Your task to perform on an android device: turn on javascript in the chrome app Image 0: 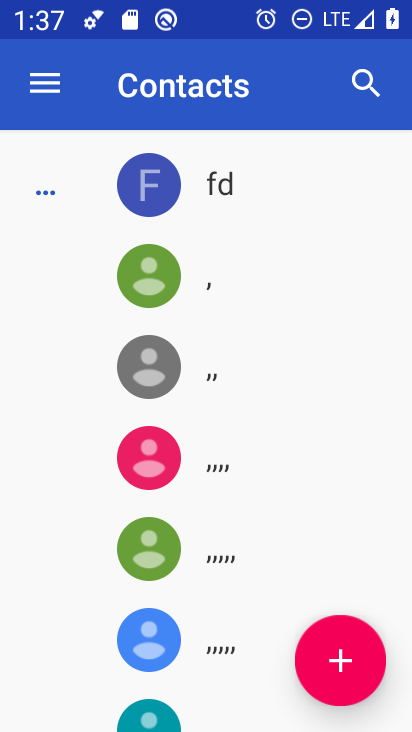
Step 0: press home button
Your task to perform on an android device: turn on javascript in the chrome app Image 1: 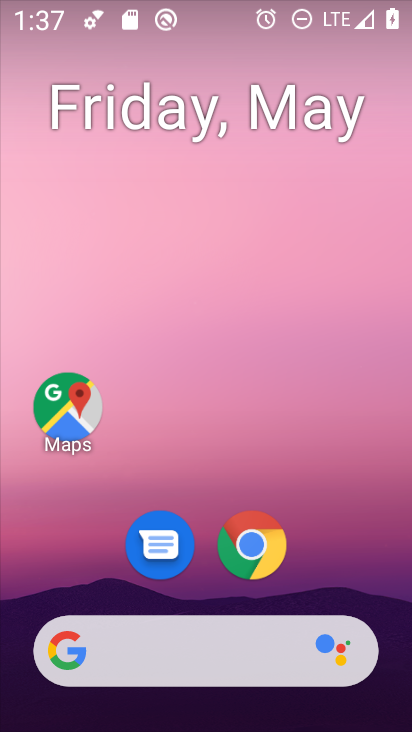
Step 1: drag from (349, 527) to (311, 204)
Your task to perform on an android device: turn on javascript in the chrome app Image 2: 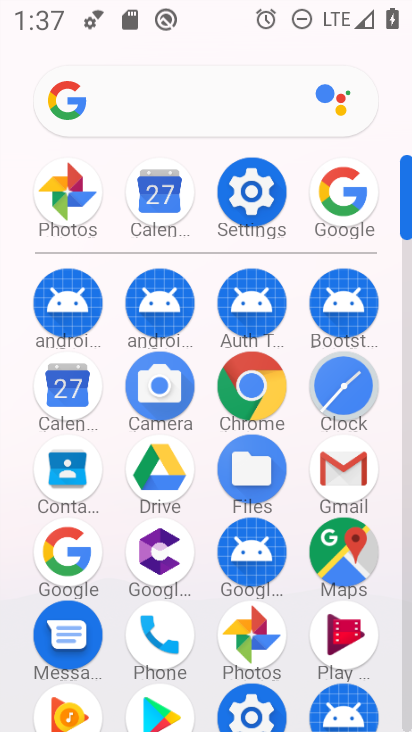
Step 2: click (260, 382)
Your task to perform on an android device: turn on javascript in the chrome app Image 3: 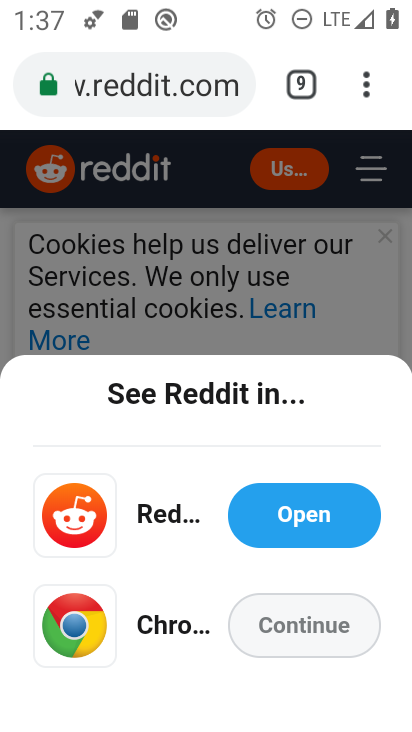
Step 3: click (373, 70)
Your task to perform on an android device: turn on javascript in the chrome app Image 4: 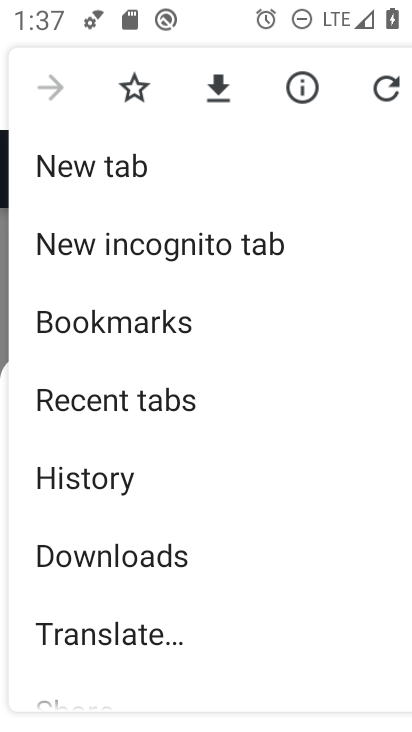
Step 4: drag from (184, 580) to (266, 204)
Your task to perform on an android device: turn on javascript in the chrome app Image 5: 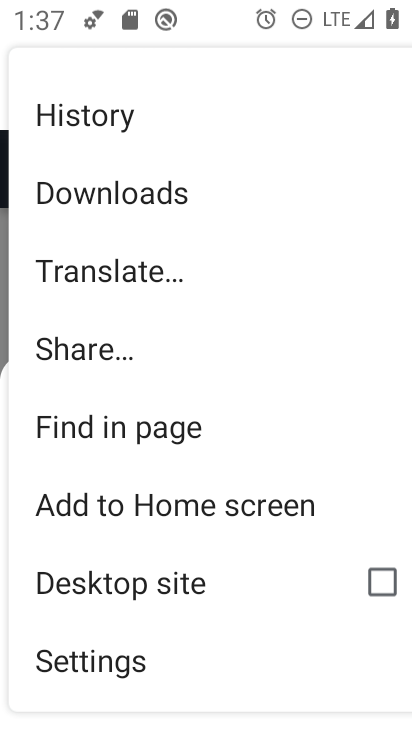
Step 5: drag from (160, 651) to (198, 374)
Your task to perform on an android device: turn on javascript in the chrome app Image 6: 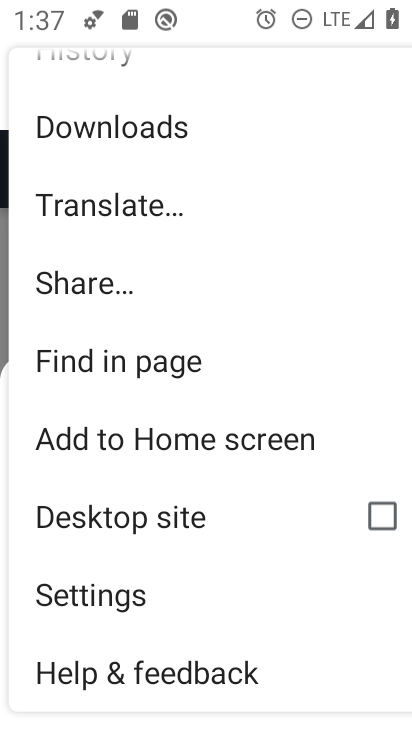
Step 6: click (127, 591)
Your task to perform on an android device: turn on javascript in the chrome app Image 7: 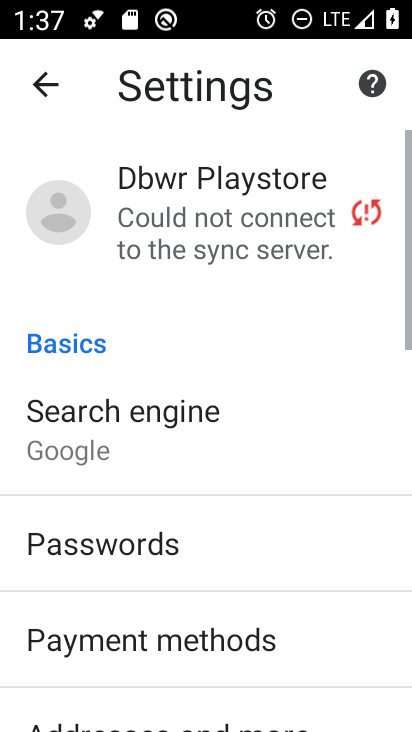
Step 7: drag from (220, 590) to (263, 270)
Your task to perform on an android device: turn on javascript in the chrome app Image 8: 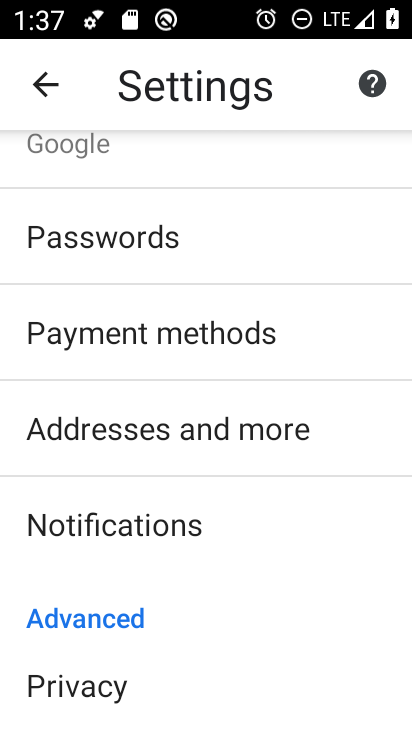
Step 8: drag from (171, 589) to (221, 237)
Your task to perform on an android device: turn on javascript in the chrome app Image 9: 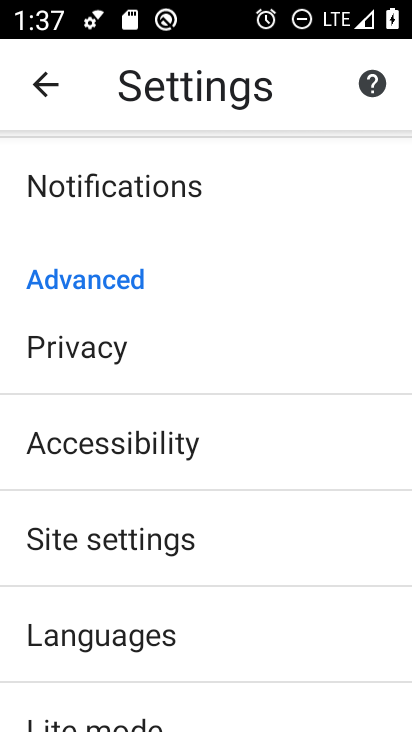
Step 9: click (105, 530)
Your task to perform on an android device: turn on javascript in the chrome app Image 10: 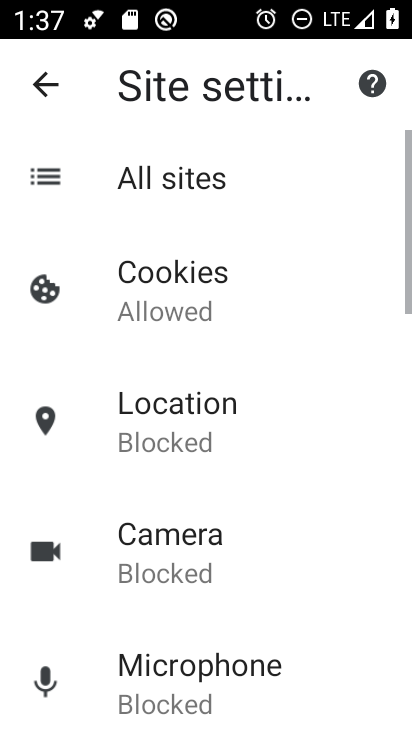
Step 10: drag from (237, 612) to (266, 251)
Your task to perform on an android device: turn on javascript in the chrome app Image 11: 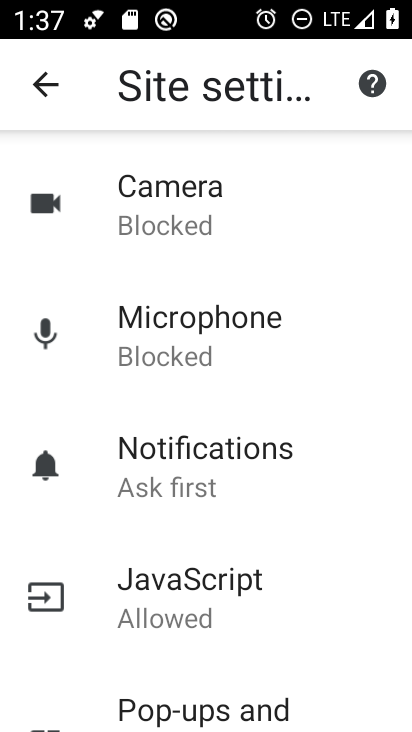
Step 11: click (198, 580)
Your task to perform on an android device: turn on javascript in the chrome app Image 12: 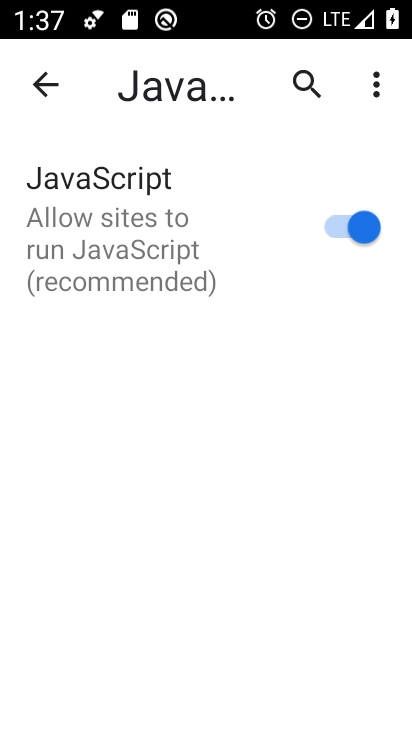
Step 12: task complete